Your task to perform on an android device: Show me recent news Image 0: 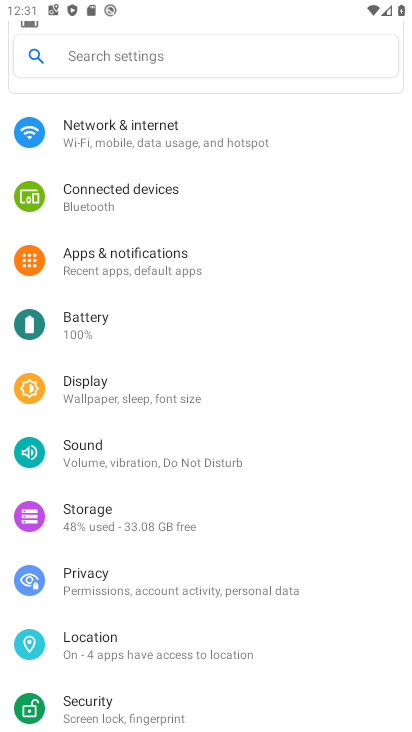
Step 0: press home button
Your task to perform on an android device: Show me recent news Image 1: 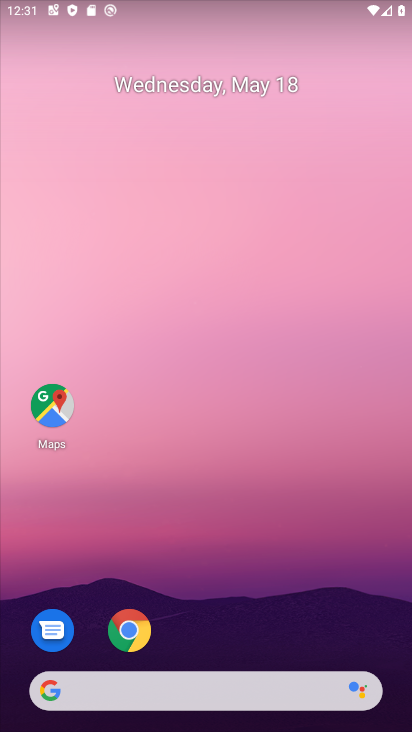
Step 1: task complete